Your task to perform on an android device: change the clock display to analog Image 0: 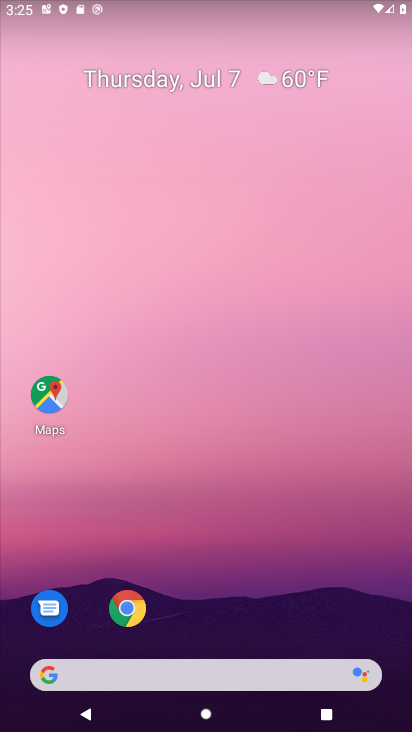
Step 0: drag from (180, 675) to (236, 247)
Your task to perform on an android device: change the clock display to analog Image 1: 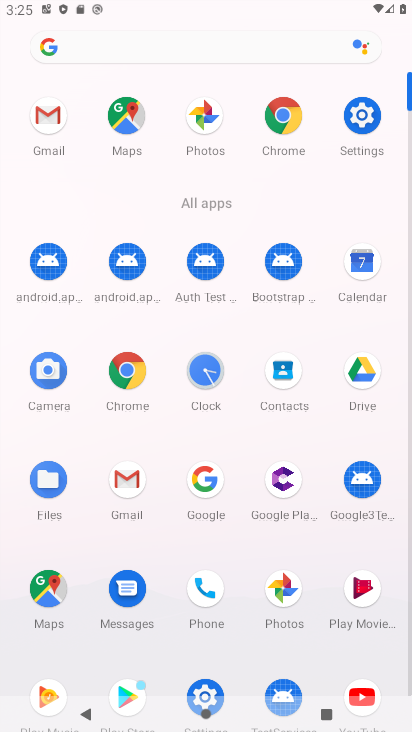
Step 1: click (216, 370)
Your task to perform on an android device: change the clock display to analog Image 2: 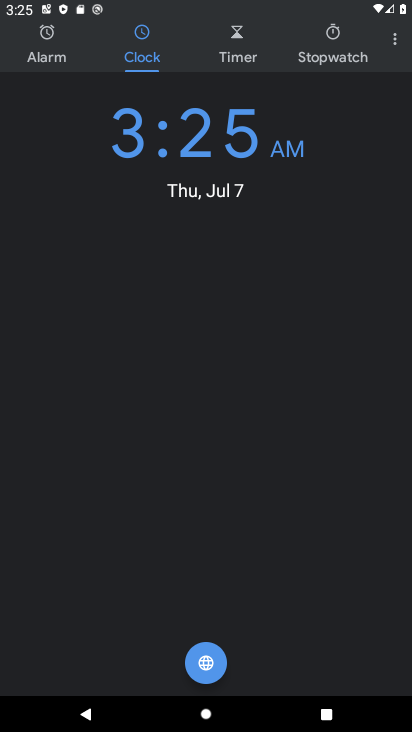
Step 2: click (397, 42)
Your task to perform on an android device: change the clock display to analog Image 3: 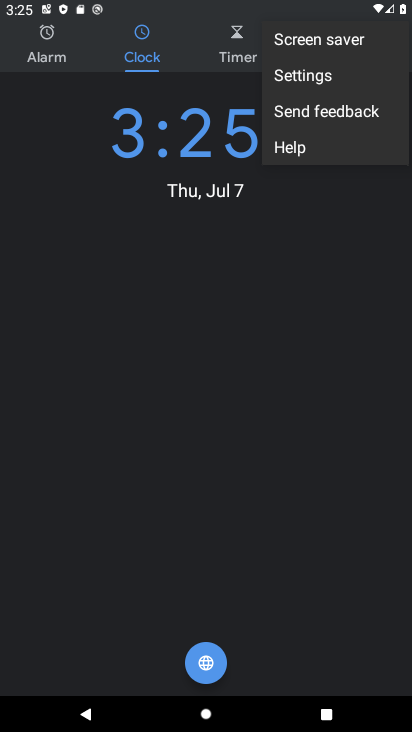
Step 3: click (348, 77)
Your task to perform on an android device: change the clock display to analog Image 4: 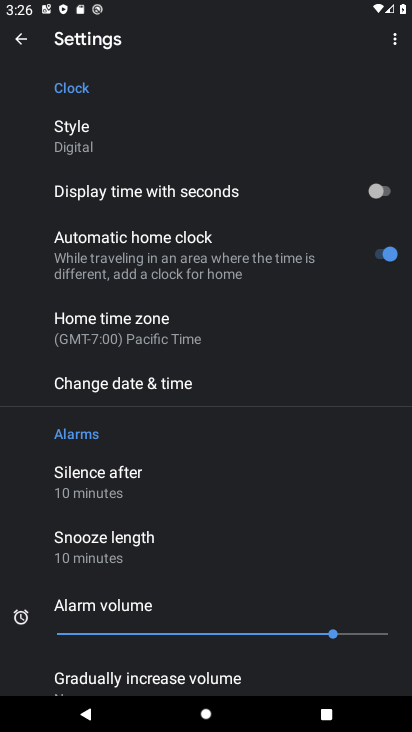
Step 4: click (194, 125)
Your task to perform on an android device: change the clock display to analog Image 5: 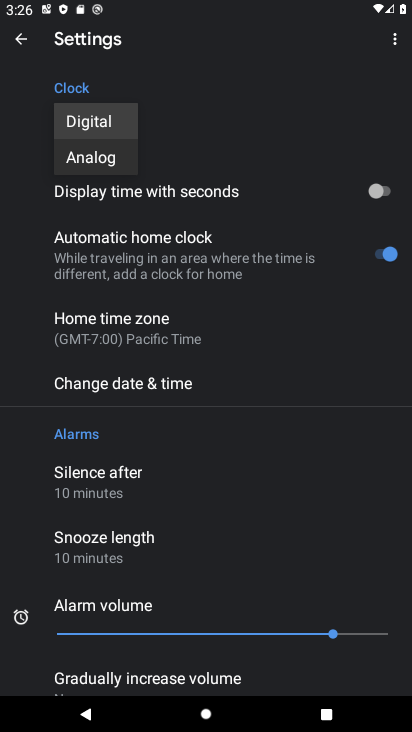
Step 5: click (110, 150)
Your task to perform on an android device: change the clock display to analog Image 6: 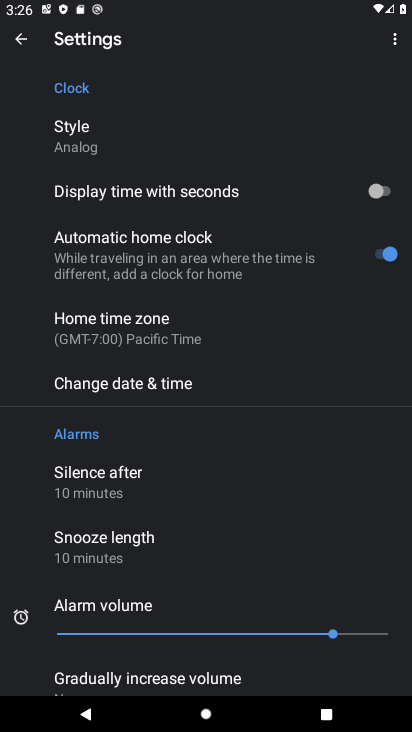
Step 6: task complete